Your task to perform on an android device: Go to accessibility settings Image 0: 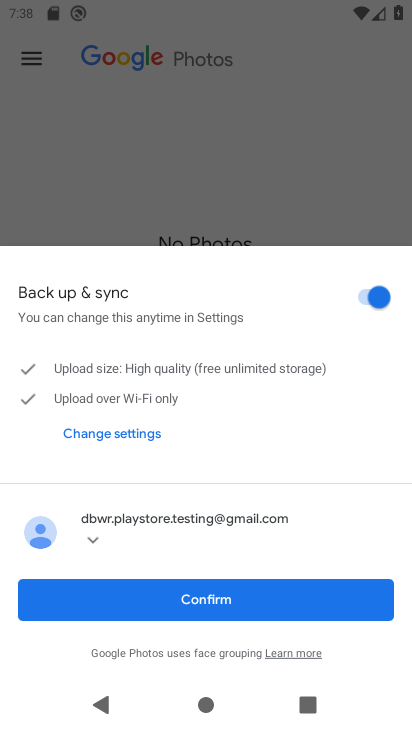
Step 0: press home button
Your task to perform on an android device: Go to accessibility settings Image 1: 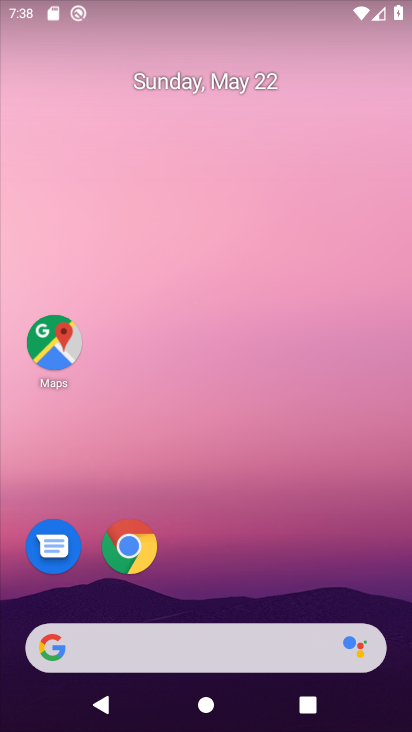
Step 1: drag from (136, 645) to (315, 157)
Your task to perform on an android device: Go to accessibility settings Image 2: 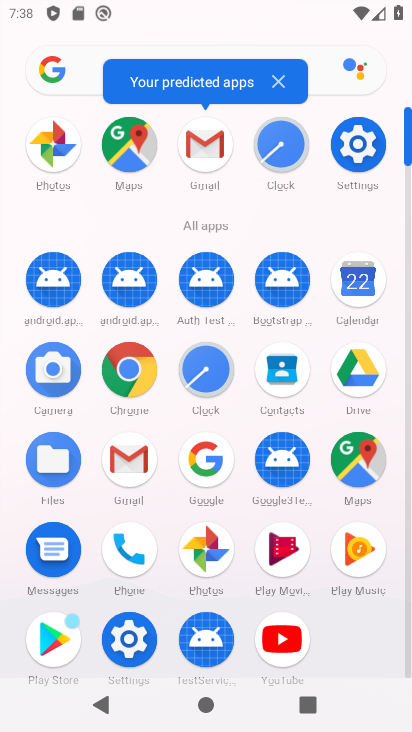
Step 2: click (351, 145)
Your task to perform on an android device: Go to accessibility settings Image 3: 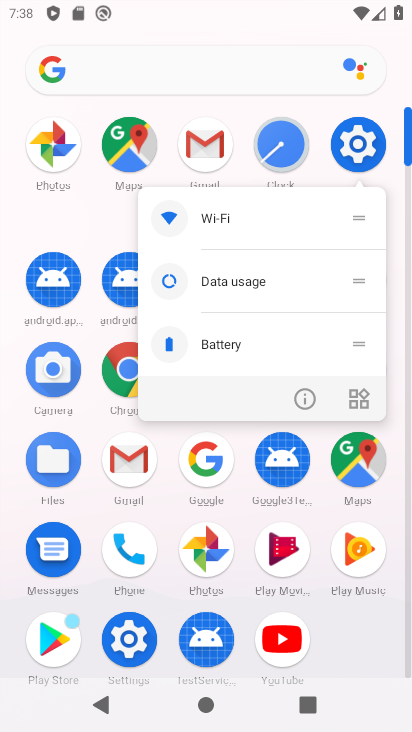
Step 3: click (357, 154)
Your task to perform on an android device: Go to accessibility settings Image 4: 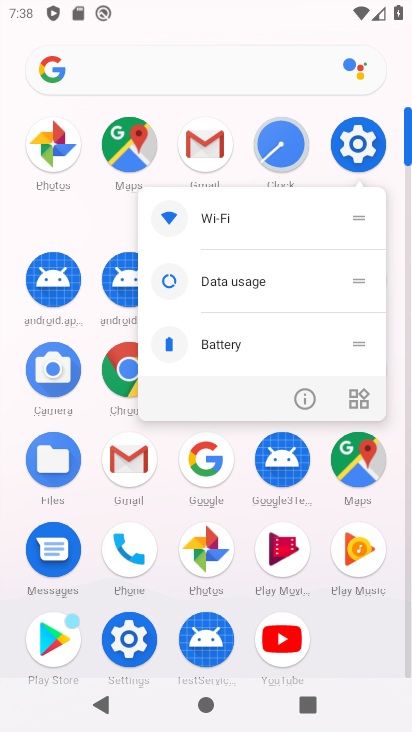
Step 4: click (362, 149)
Your task to perform on an android device: Go to accessibility settings Image 5: 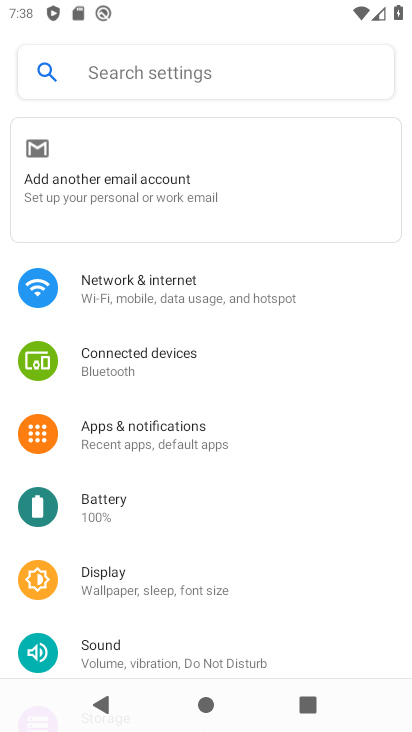
Step 5: drag from (219, 615) to (363, 143)
Your task to perform on an android device: Go to accessibility settings Image 6: 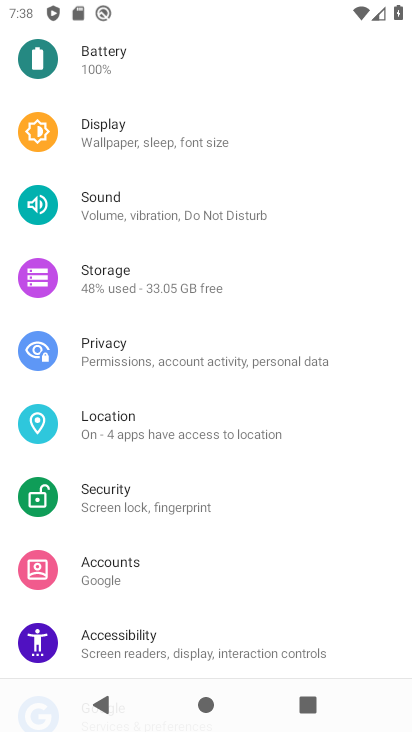
Step 6: click (139, 645)
Your task to perform on an android device: Go to accessibility settings Image 7: 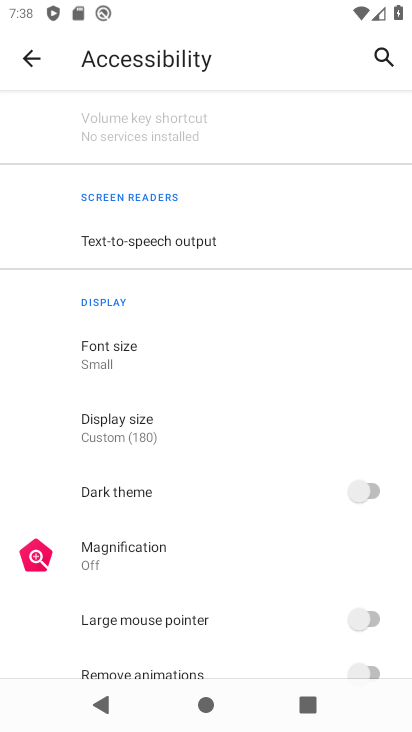
Step 7: task complete